Your task to perform on an android device: open app "Facebook" Image 0: 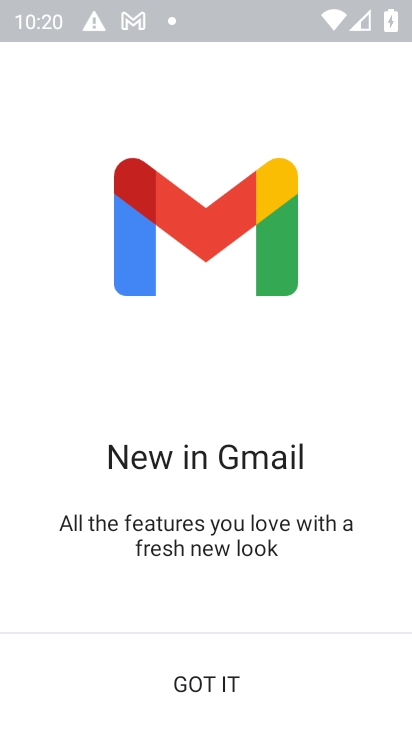
Step 0: press home button
Your task to perform on an android device: open app "Facebook" Image 1: 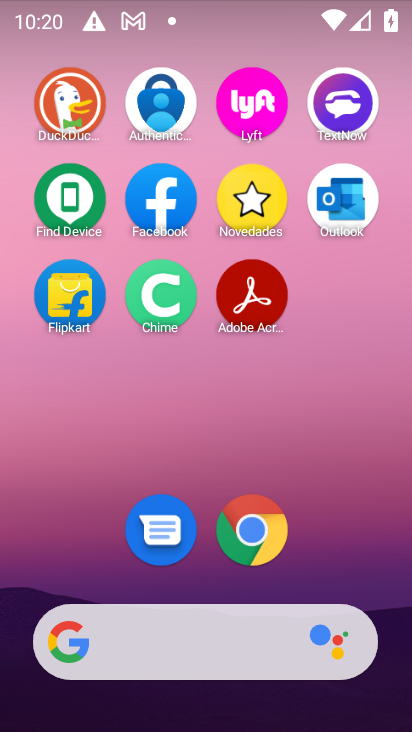
Step 1: drag from (267, 380) to (291, 3)
Your task to perform on an android device: open app "Facebook" Image 2: 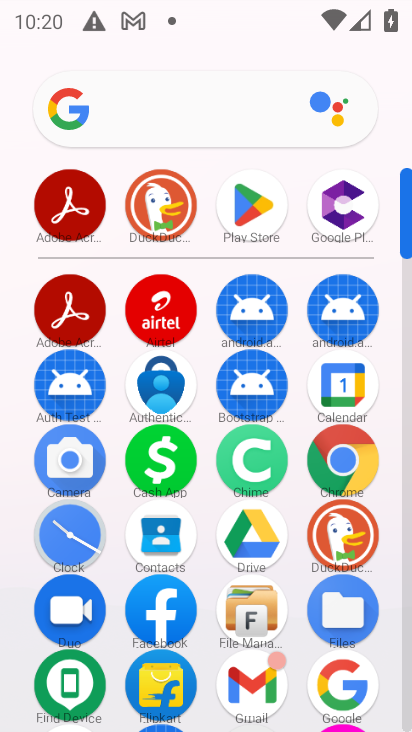
Step 2: click (245, 203)
Your task to perform on an android device: open app "Facebook" Image 3: 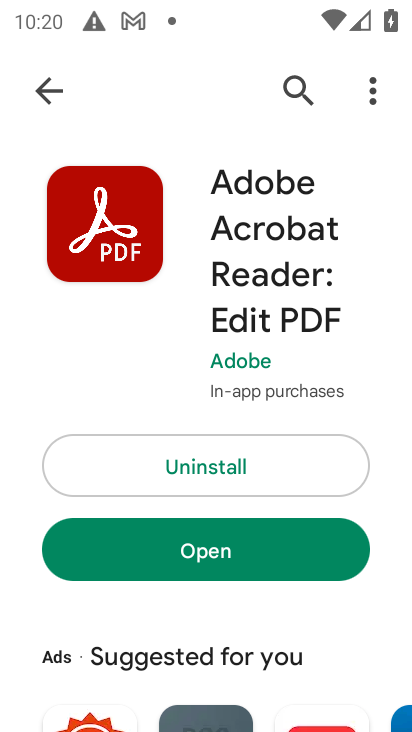
Step 3: click (304, 90)
Your task to perform on an android device: open app "Facebook" Image 4: 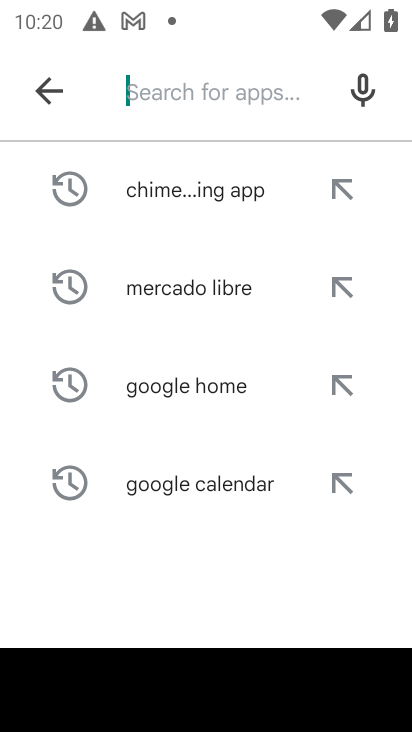
Step 4: type "Facebook"
Your task to perform on an android device: open app "Facebook" Image 5: 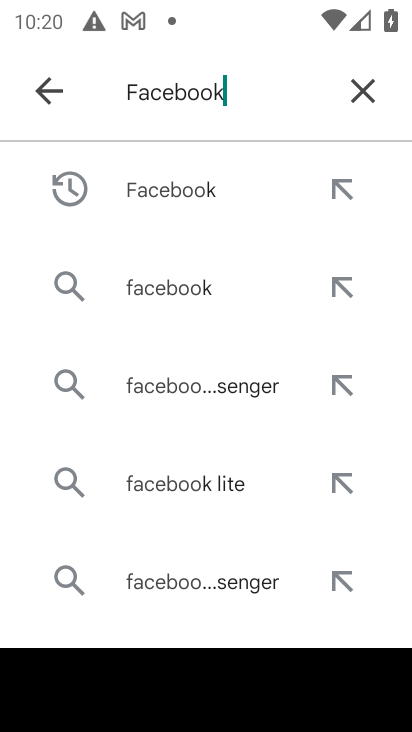
Step 5: type ""
Your task to perform on an android device: open app "Facebook" Image 6: 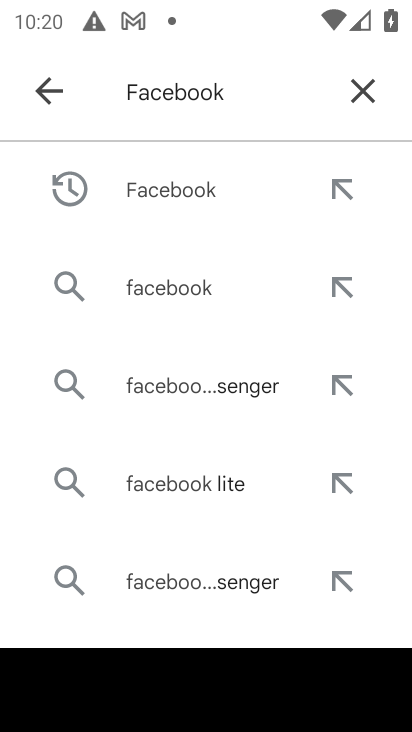
Step 6: click (229, 191)
Your task to perform on an android device: open app "Facebook" Image 7: 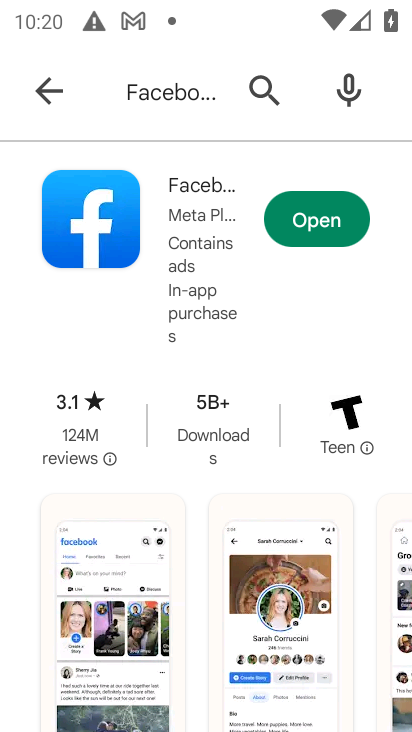
Step 7: click (313, 218)
Your task to perform on an android device: open app "Facebook" Image 8: 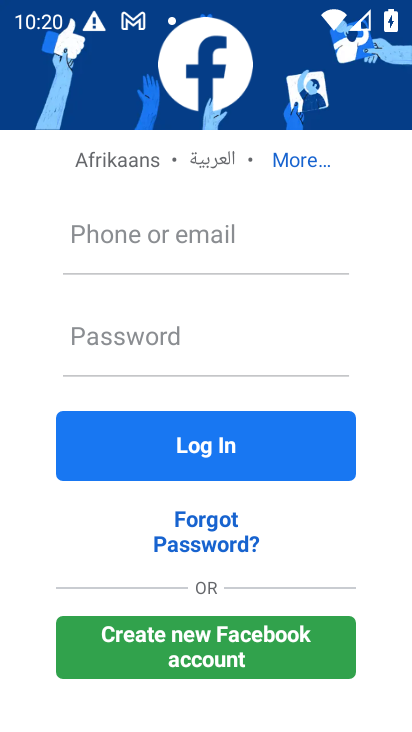
Step 8: task complete